Your task to perform on an android device: See recent photos Image 0: 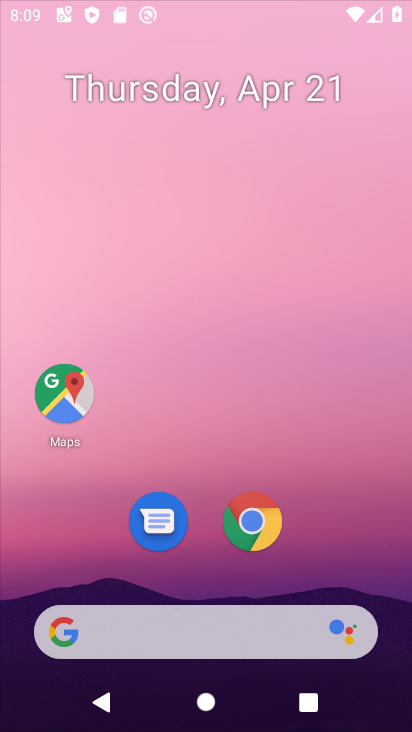
Step 0: drag from (225, 560) to (260, 351)
Your task to perform on an android device: See recent photos Image 1: 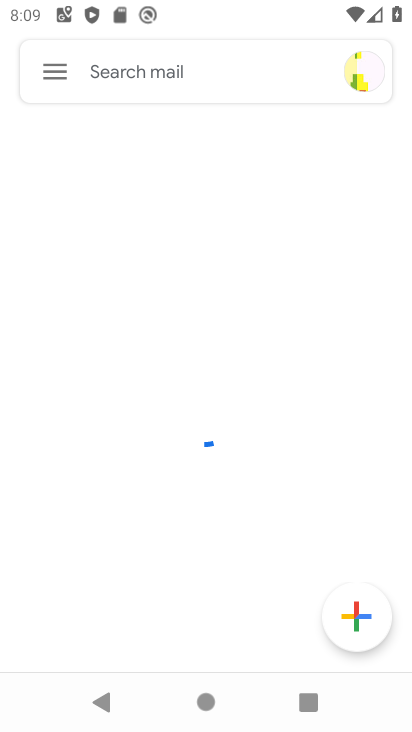
Step 1: press home button
Your task to perform on an android device: See recent photos Image 2: 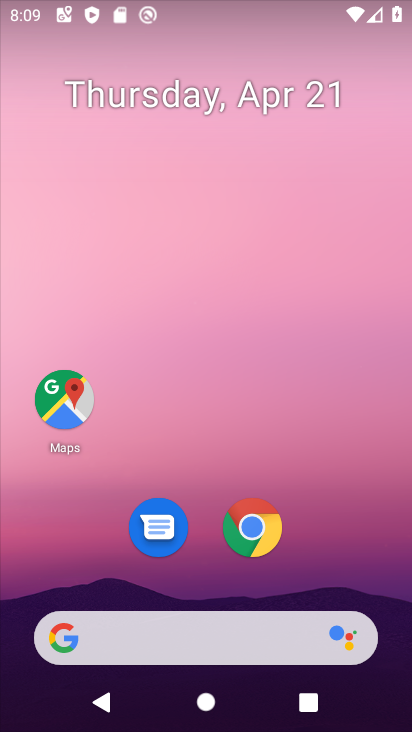
Step 2: drag from (255, 637) to (295, 265)
Your task to perform on an android device: See recent photos Image 3: 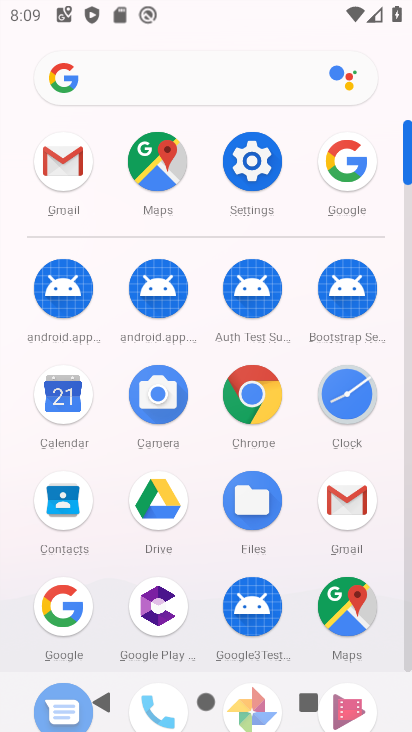
Step 3: drag from (328, 428) to (387, 213)
Your task to perform on an android device: See recent photos Image 4: 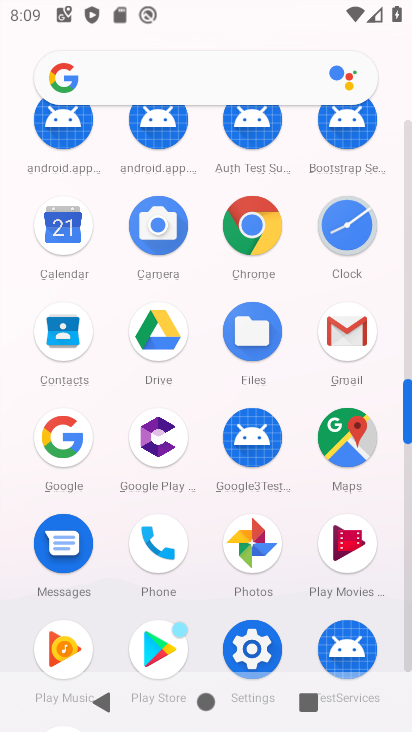
Step 4: click (257, 552)
Your task to perform on an android device: See recent photos Image 5: 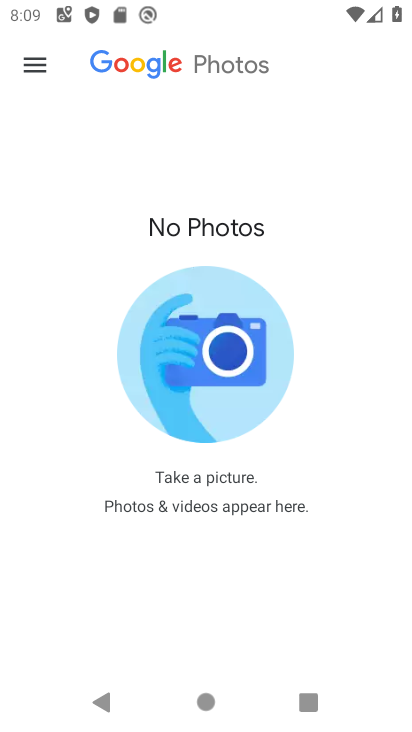
Step 5: task complete